Your task to perform on an android device: Open the calendar app, open the side menu, and click the "Day" option Image 0: 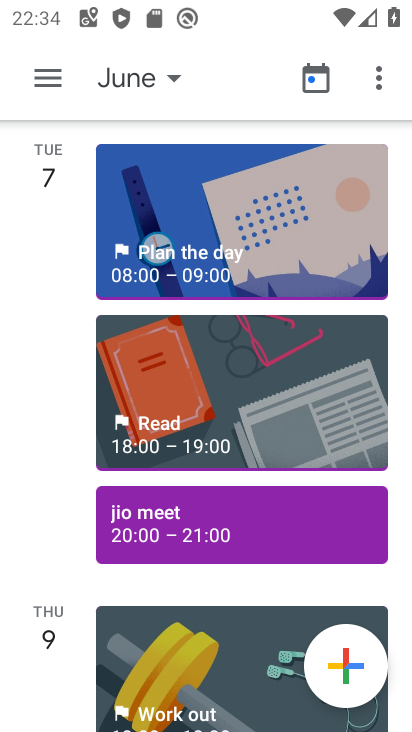
Step 0: press home button
Your task to perform on an android device: Open the calendar app, open the side menu, and click the "Day" option Image 1: 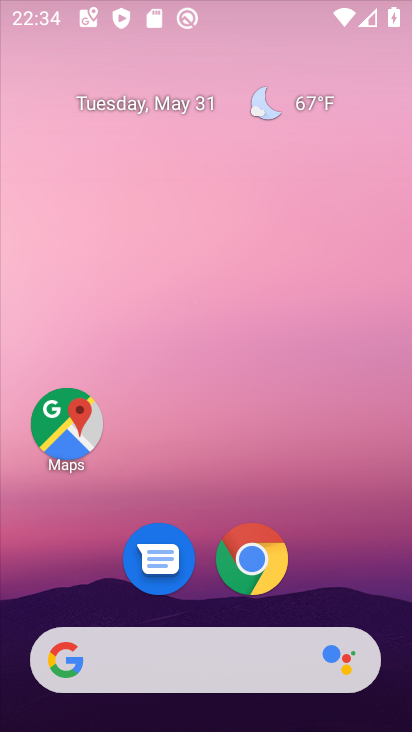
Step 1: drag from (328, 580) to (361, 18)
Your task to perform on an android device: Open the calendar app, open the side menu, and click the "Day" option Image 2: 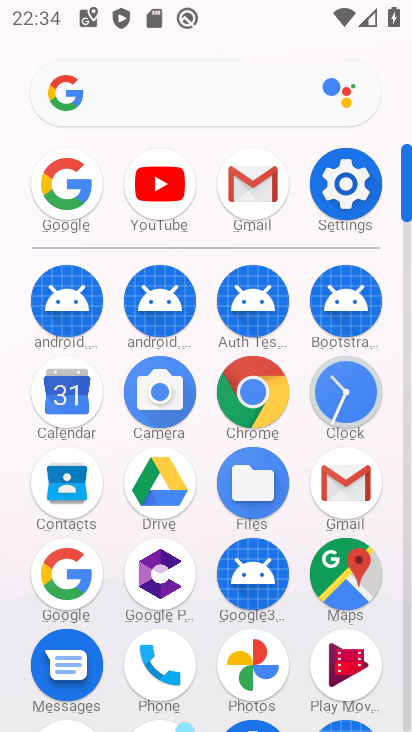
Step 2: click (64, 401)
Your task to perform on an android device: Open the calendar app, open the side menu, and click the "Day" option Image 3: 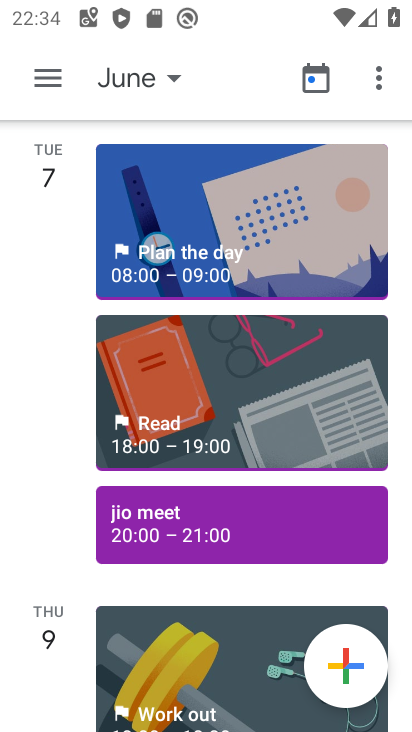
Step 3: click (162, 80)
Your task to perform on an android device: Open the calendar app, open the side menu, and click the "Day" option Image 4: 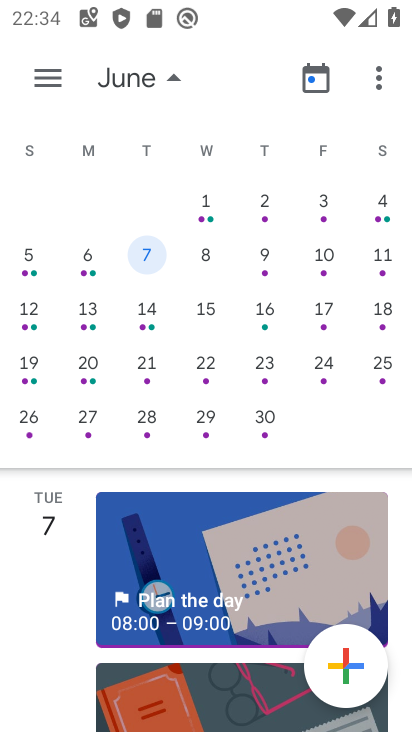
Step 4: drag from (34, 430) to (367, 414)
Your task to perform on an android device: Open the calendar app, open the side menu, and click the "Day" option Image 5: 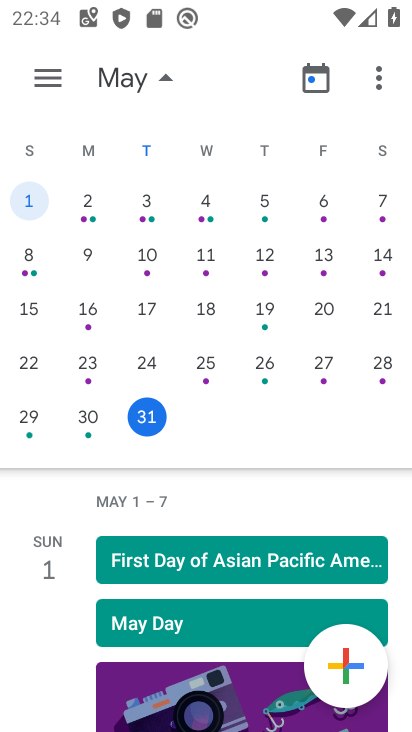
Step 5: click (149, 430)
Your task to perform on an android device: Open the calendar app, open the side menu, and click the "Day" option Image 6: 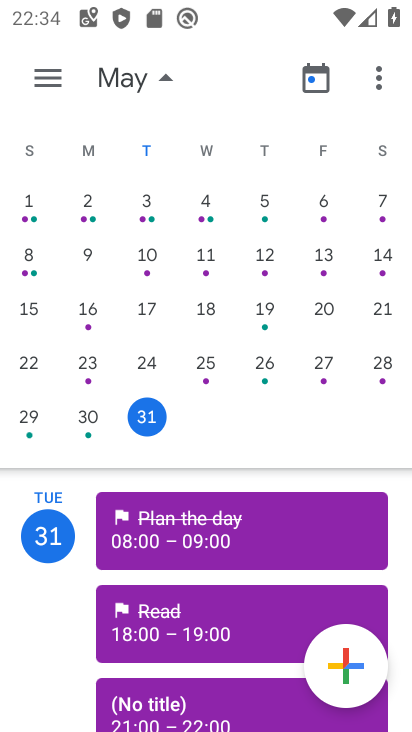
Step 6: click (56, 73)
Your task to perform on an android device: Open the calendar app, open the side menu, and click the "Day" option Image 7: 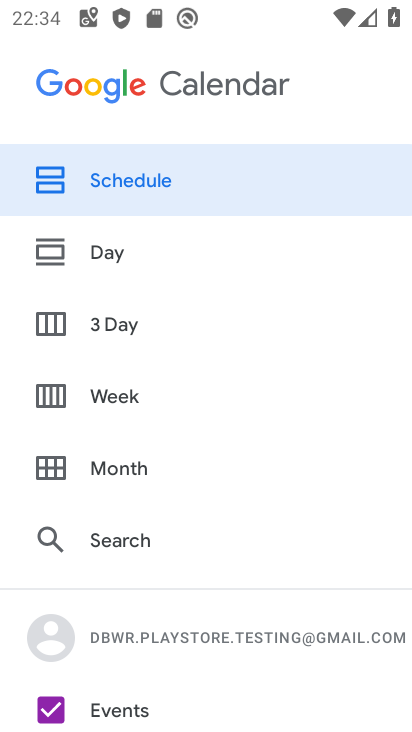
Step 7: click (133, 281)
Your task to perform on an android device: Open the calendar app, open the side menu, and click the "Day" option Image 8: 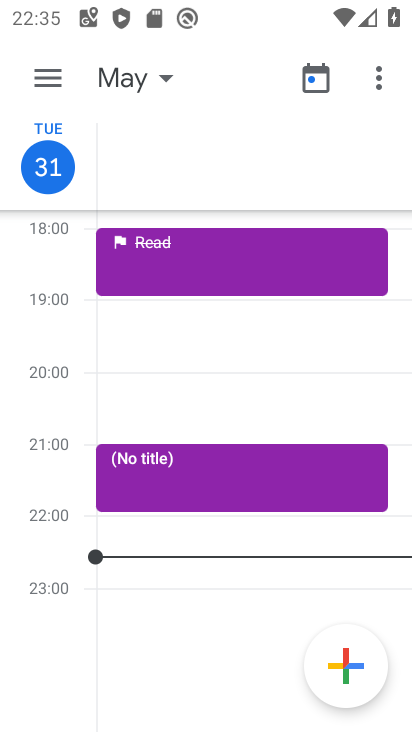
Step 8: task complete